Your task to perform on an android device: change timer sound Image 0: 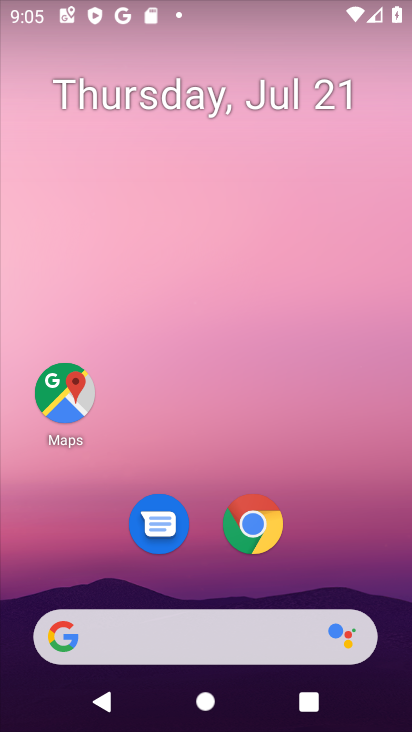
Step 0: drag from (177, 624) to (258, 145)
Your task to perform on an android device: change timer sound Image 1: 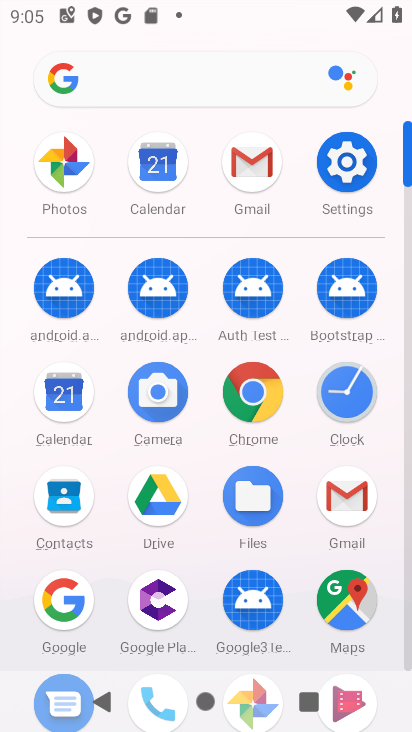
Step 1: click (348, 391)
Your task to perform on an android device: change timer sound Image 2: 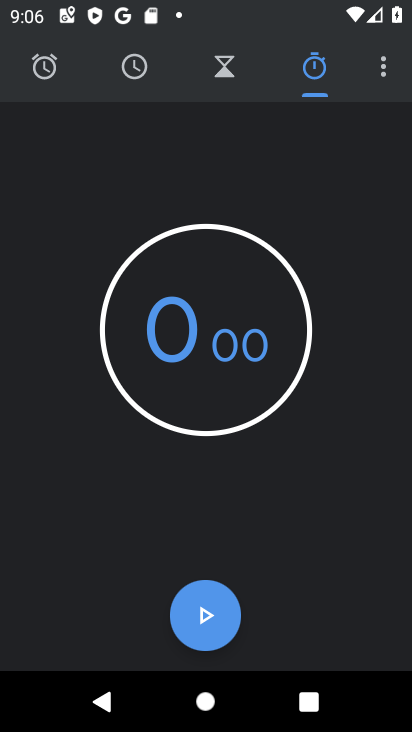
Step 2: click (378, 65)
Your task to perform on an android device: change timer sound Image 3: 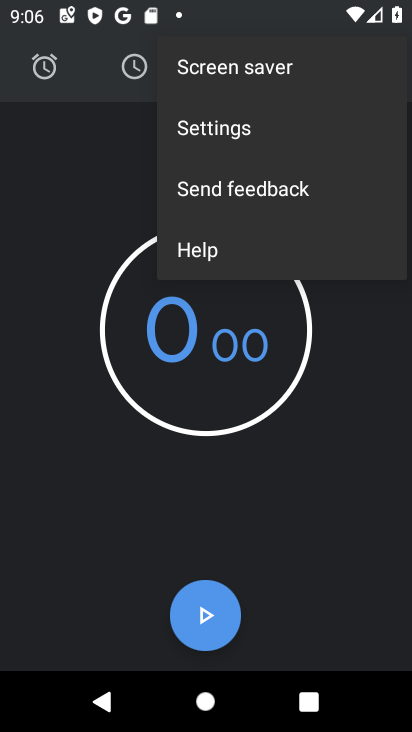
Step 3: click (237, 131)
Your task to perform on an android device: change timer sound Image 4: 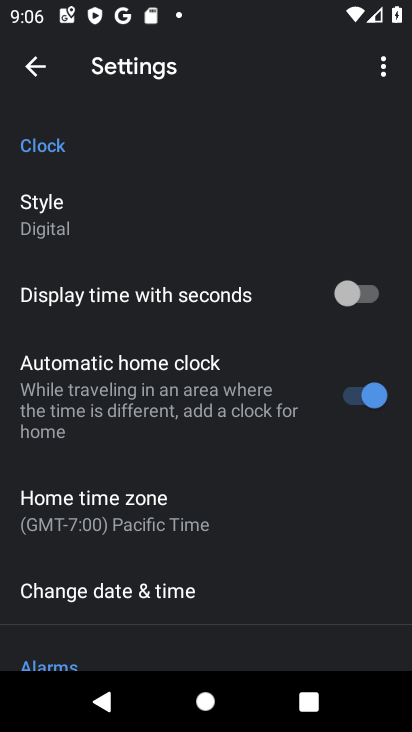
Step 4: drag from (209, 543) to (334, 42)
Your task to perform on an android device: change timer sound Image 5: 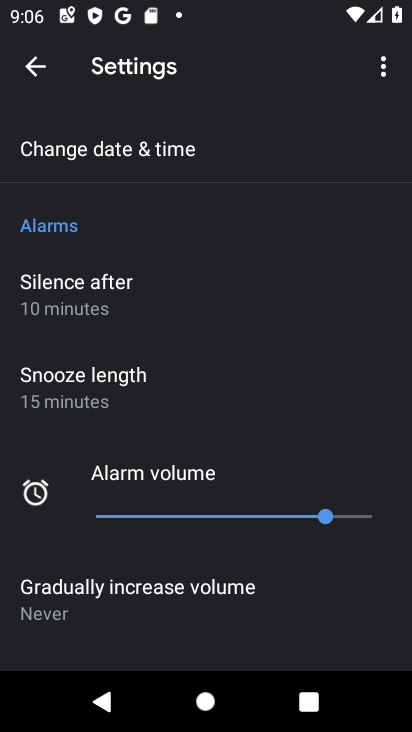
Step 5: drag from (181, 393) to (280, 69)
Your task to perform on an android device: change timer sound Image 6: 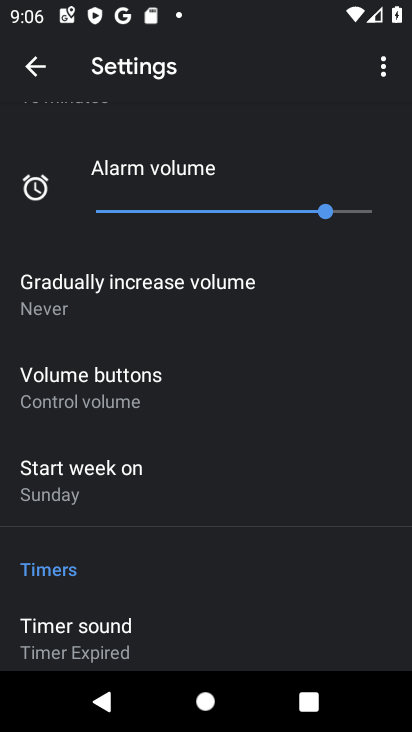
Step 6: click (113, 634)
Your task to perform on an android device: change timer sound Image 7: 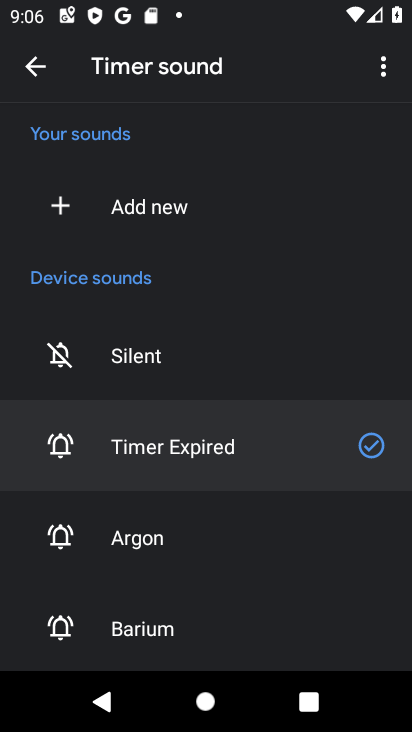
Step 7: click (125, 628)
Your task to perform on an android device: change timer sound Image 8: 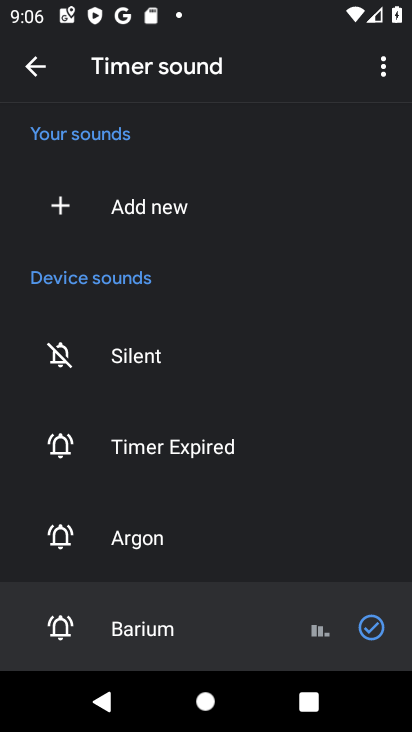
Step 8: task complete